Your task to perform on an android device: Search for Mexican restaurants on Maps Image 0: 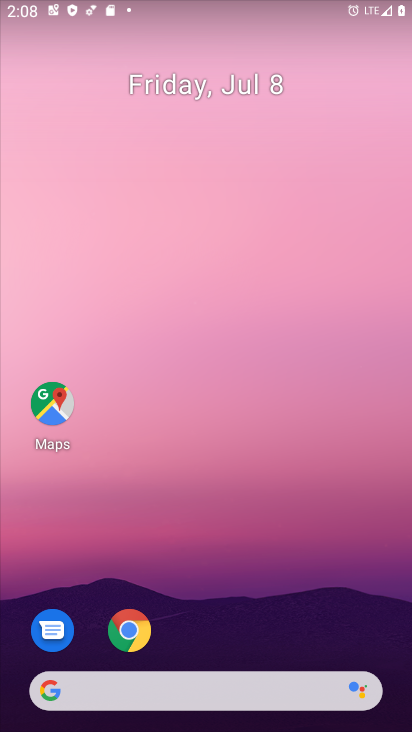
Step 0: click (51, 398)
Your task to perform on an android device: Search for Mexican restaurants on Maps Image 1: 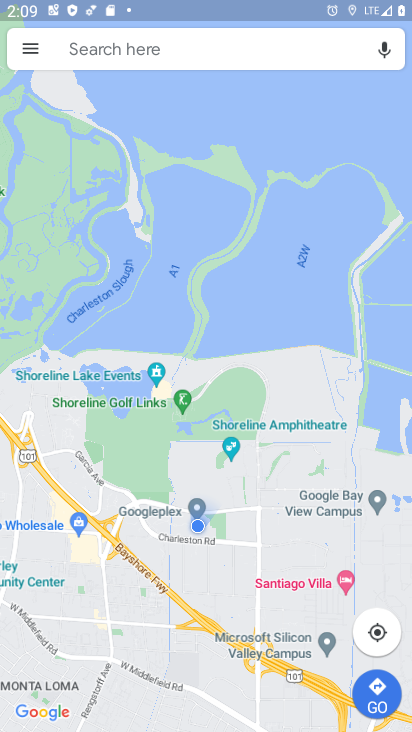
Step 1: click (133, 43)
Your task to perform on an android device: Search for Mexican restaurants on Maps Image 2: 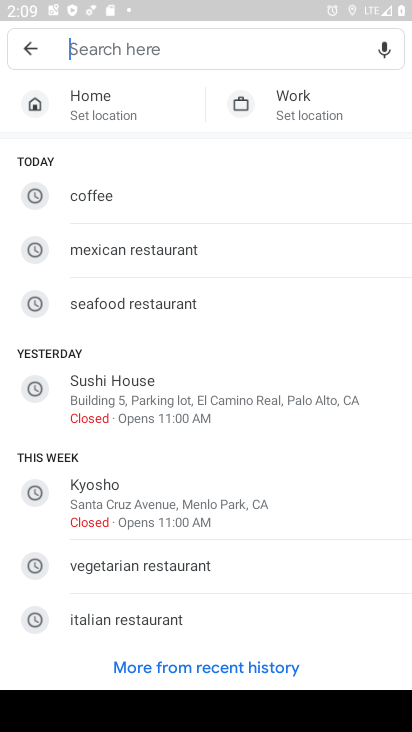
Step 2: click (184, 243)
Your task to perform on an android device: Search for Mexican restaurants on Maps Image 3: 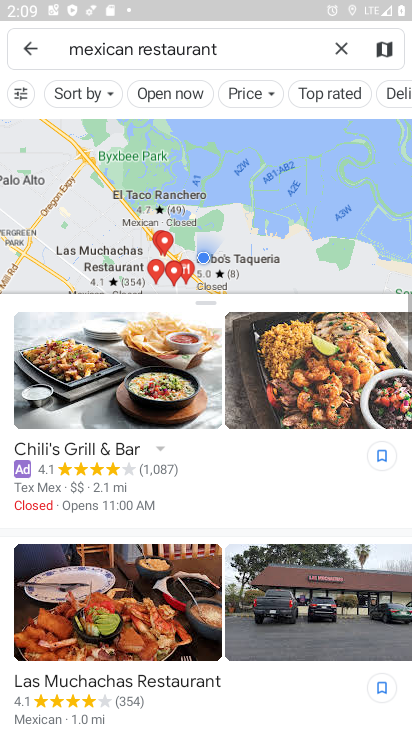
Step 3: task complete